Your task to perform on an android device: toggle translation in the chrome app Image 0: 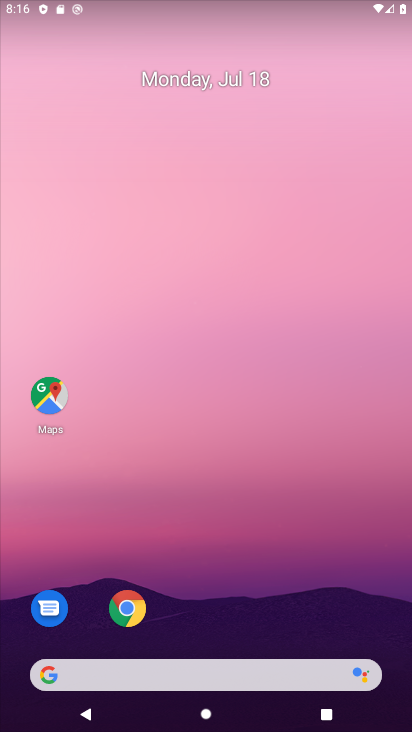
Step 0: click (123, 606)
Your task to perform on an android device: toggle translation in the chrome app Image 1: 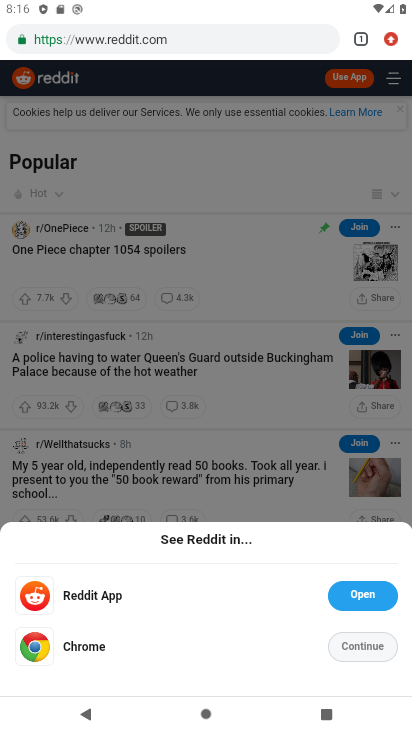
Step 1: click (390, 48)
Your task to perform on an android device: toggle translation in the chrome app Image 2: 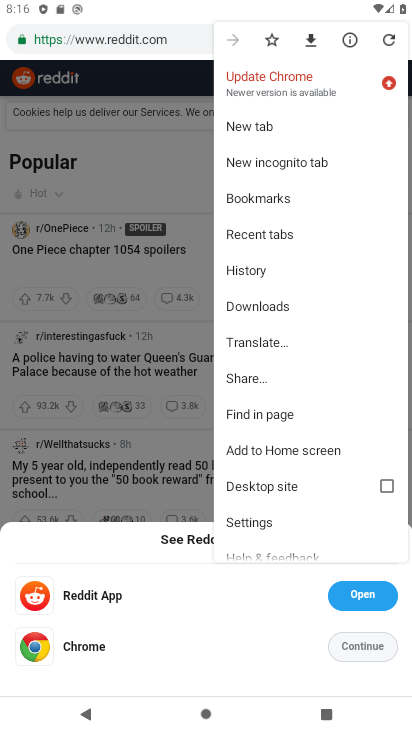
Step 2: click (282, 517)
Your task to perform on an android device: toggle translation in the chrome app Image 3: 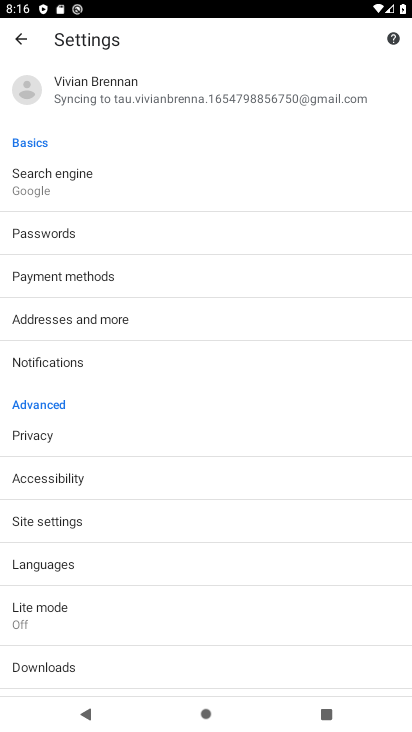
Step 3: click (58, 561)
Your task to perform on an android device: toggle translation in the chrome app Image 4: 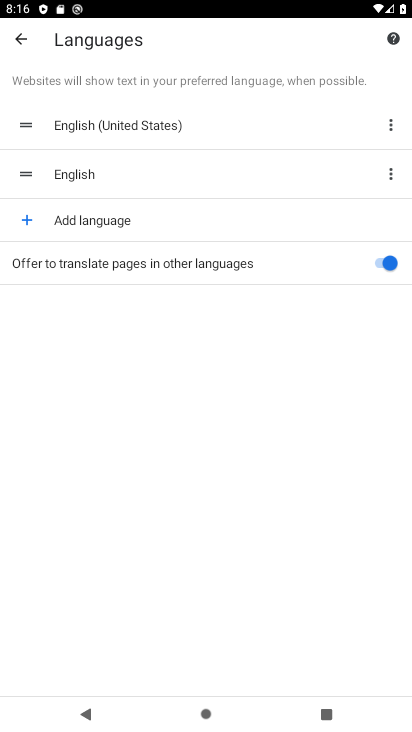
Step 4: click (381, 258)
Your task to perform on an android device: toggle translation in the chrome app Image 5: 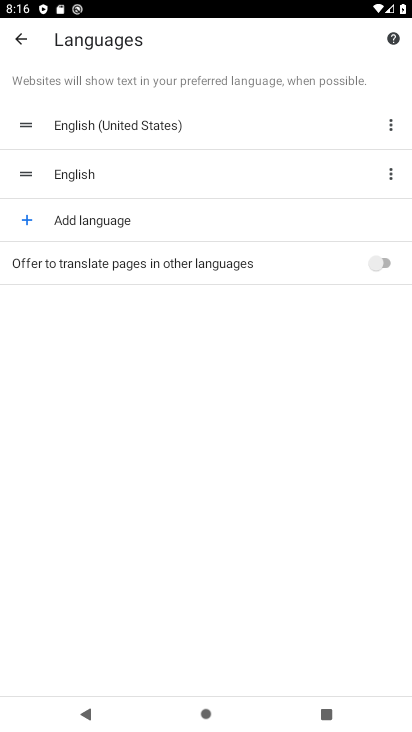
Step 5: task complete